Your task to perform on an android device: empty trash in the gmail app Image 0: 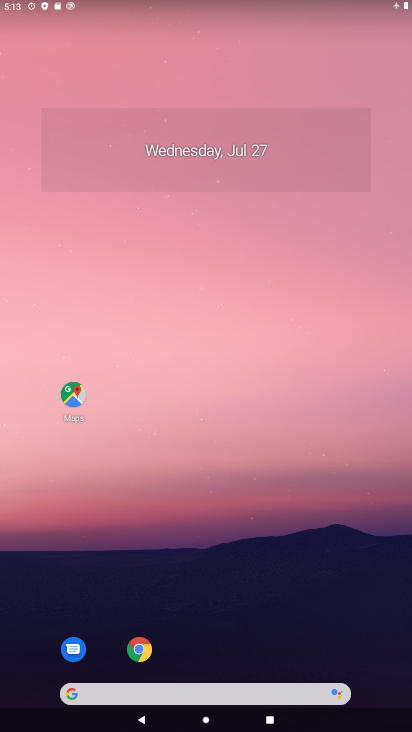
Step 0: drag from (171, 687) to (192, 35)
Your task to perform on an android device: empty trash in the gmail app Image 1: 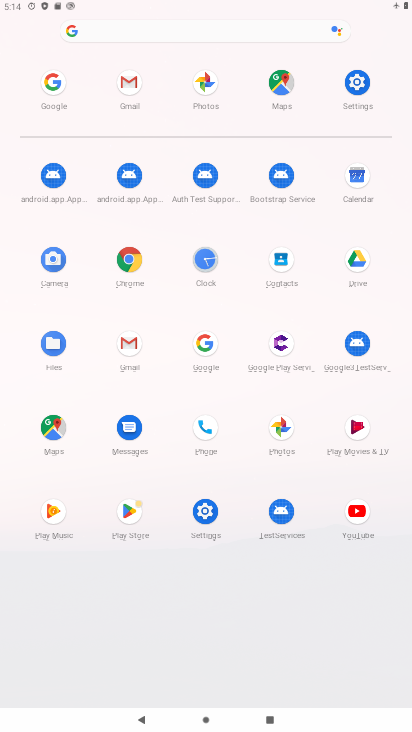
Step 1: click (128, 342)
Your task to perform on an android device: empty trash in the gmail app Image 2: 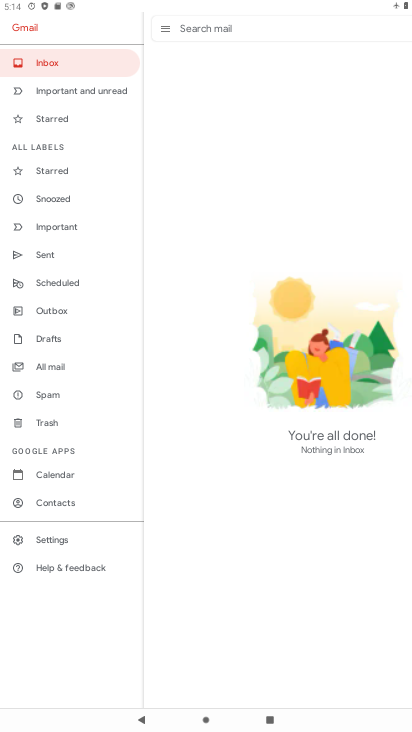
Step 2: click (54, 424)
Your task to perform on an android device: empty trash in the gmail app Image 3: 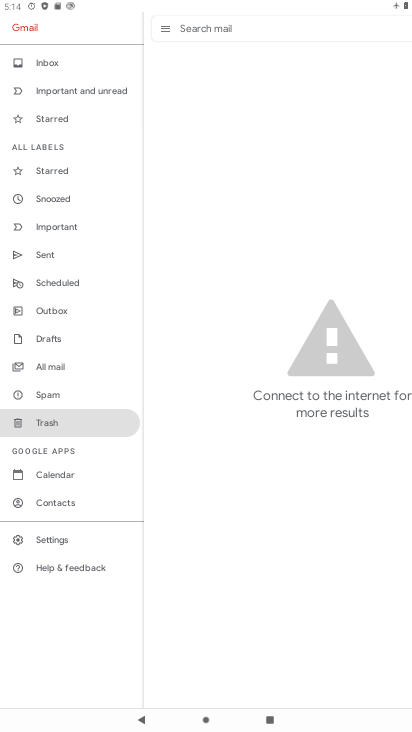
Step 3: task complete